Your task to perform on an android device: Go to location settings Image 0: 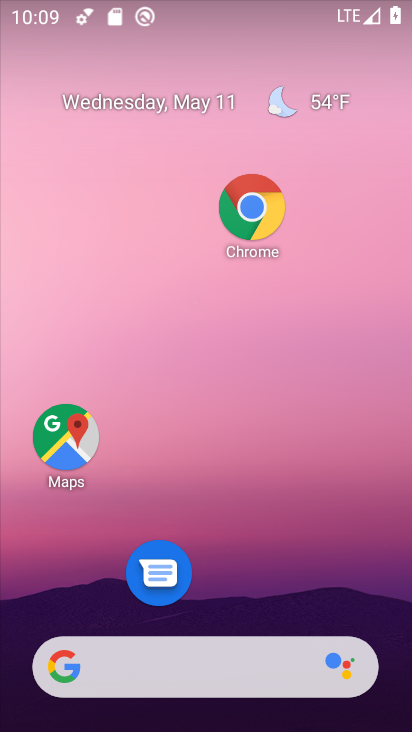
Step 0: drag from (320, 640) to (339, 1)
Your task to perform on an android device: Go to location settings Image 1: 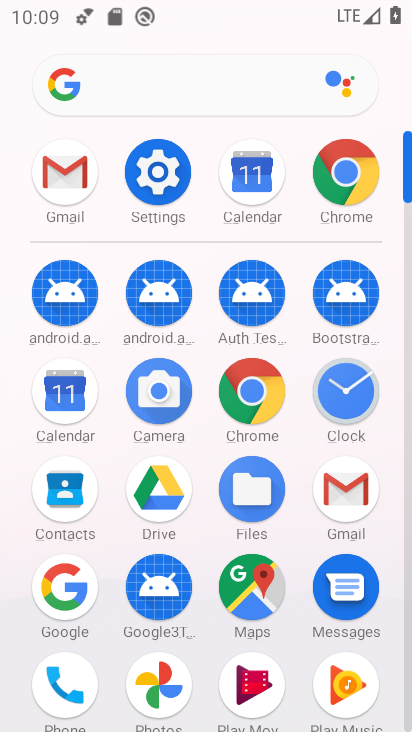
Step 1: click (142, 171)
Your task to perform on an android device: Go to location settings Image 2: 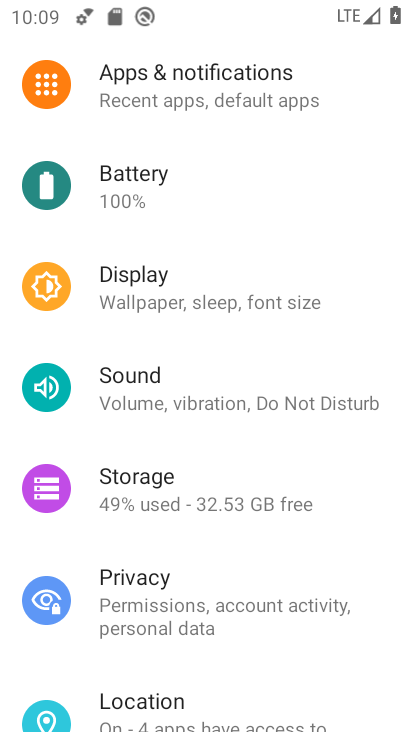
Step 2: click (204, 718)
Your task to perform on an android device: Go to location settings Image 3: 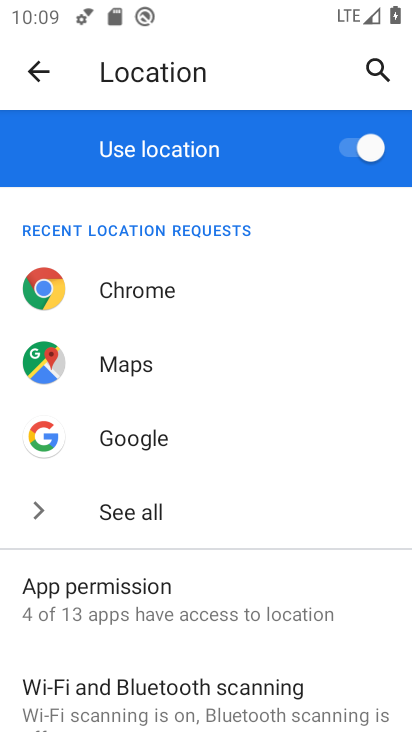
Step 3: task complete